Your task to perform on an android device: Open Maps and search for coffee Image 0: 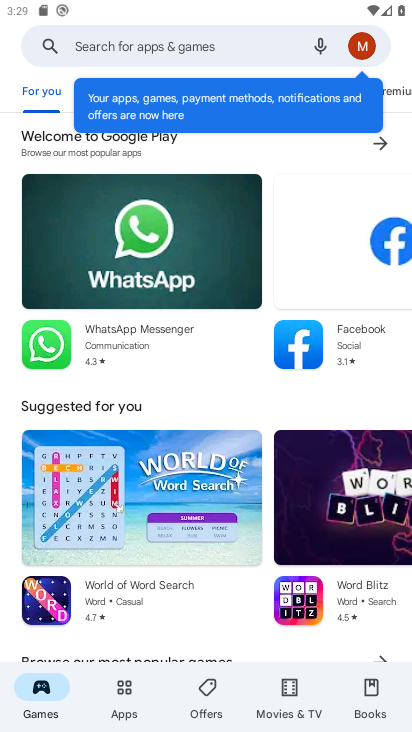
Step 0: press home button
Your task to perform on an android device: Open Maps and search for coffee Image 1: 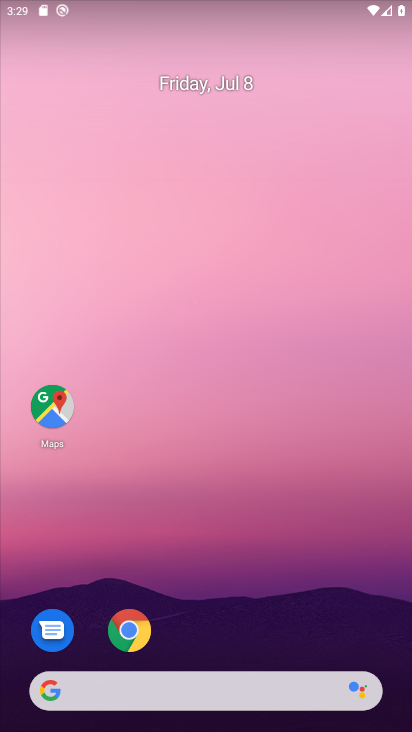
Step 1: drag from (258, 632) to (290, 171)
Your task to perform on an android device: Open Maps and search for coffee Image 2: 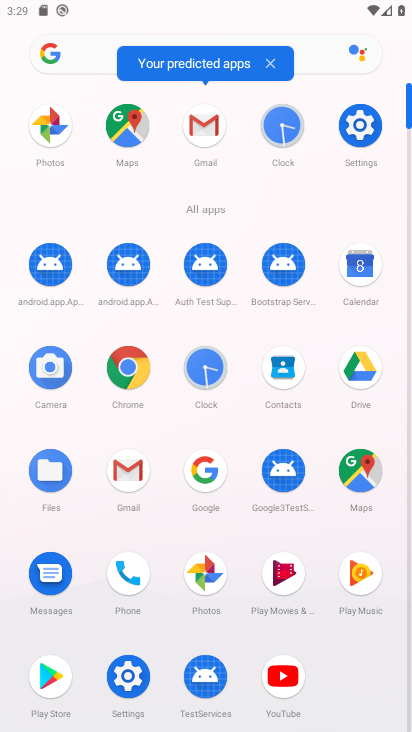
Step 2: click (362, 466)
Your task to perform on an android device: Open Maps and search for coffee Image 3: 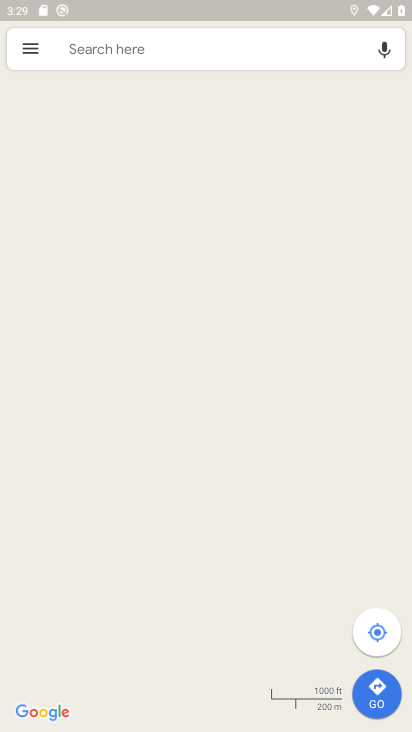
Step 3: click (216, 52)
Your task to perform on an android device: Open Maps and search for coffee Image 4: 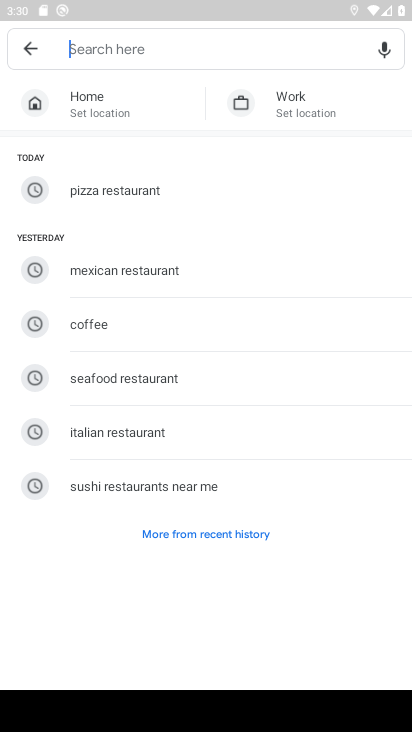
Step 4: type "coffee"
Your task to perform on an android device: Open Maps and search for coffee Image 5: 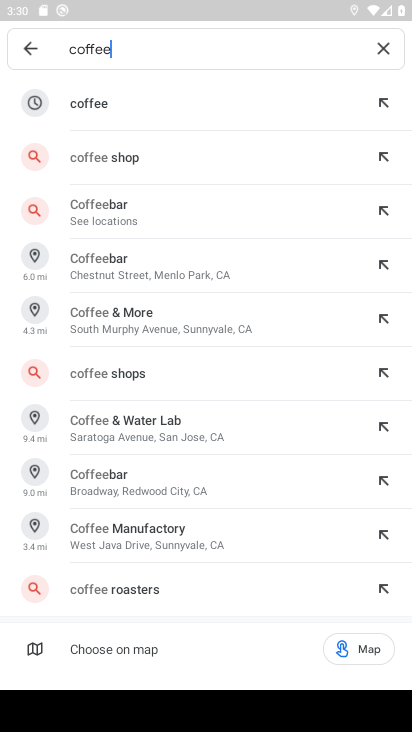
Step 5: click (88, 99)
Your task to perform on an android device: Open Maps and search for coffee Image 6: 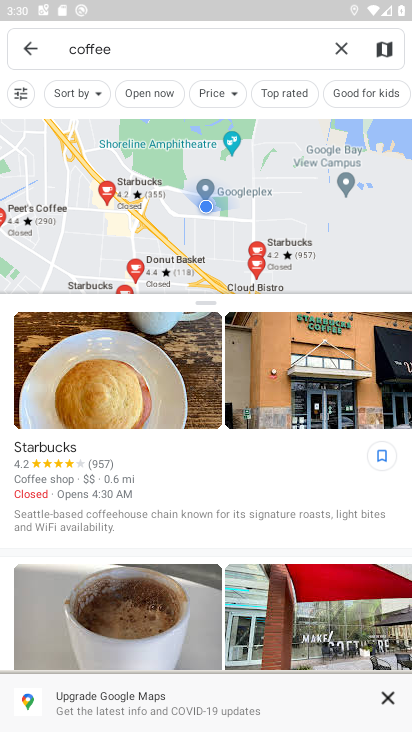
Step 6: task complete